Your task to perform on an android device: open chrome and create a bookmark for the current page Image 0: 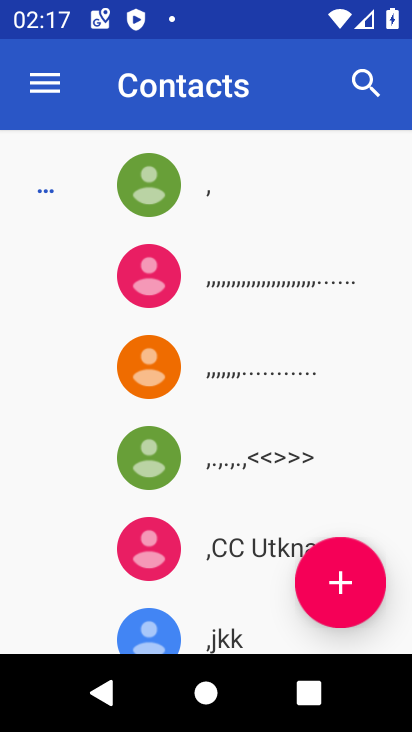
Step 0: press home button
Your task to perform on an android device: open chrome and create a bookmark for the current page Image 1: 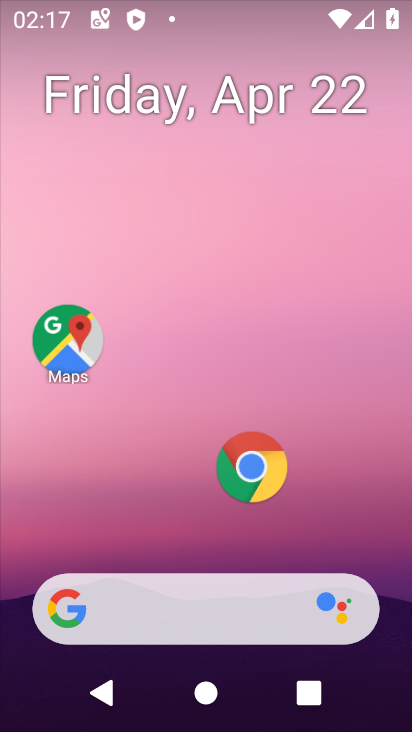
Step 1: drag from (162, 561) to (215, 46)
Your task to perform on an android device: open chrome and create a bookmark for the current page Image 2: 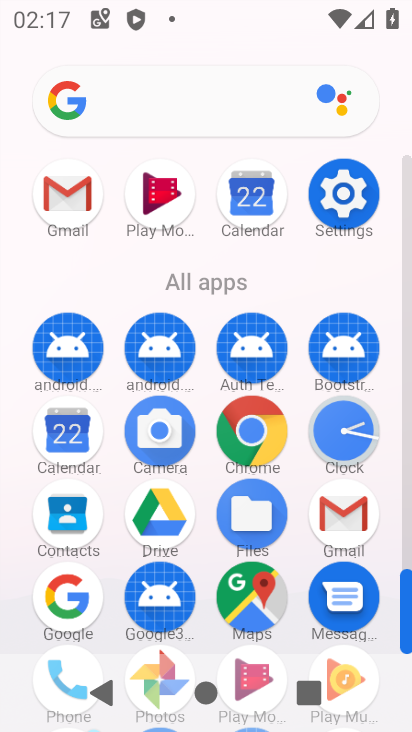
Step 2: click (252, 422)
Your task to perform on an android device: open chrome and create a bookmark for the current page Image 3: 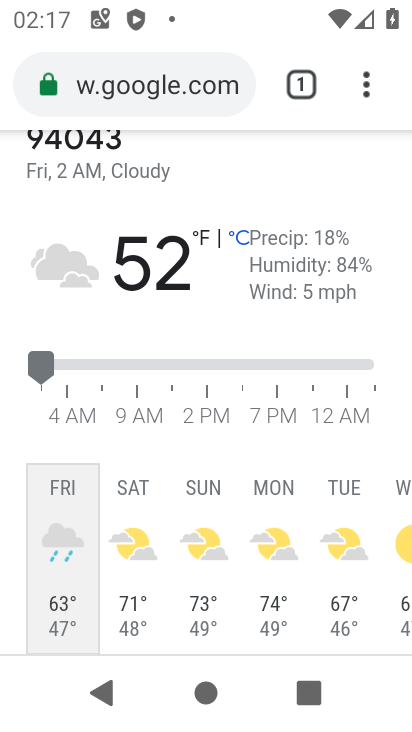
Step 3: click (360, 87)
Your task to perform on an android device: open chrome and create a bookmark for the current page Image 4: 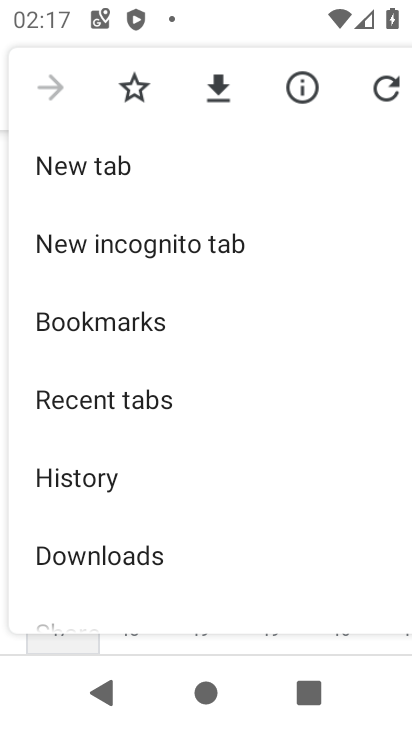
Step 4: click (127, 89)
Your task to perform on an android device: open chrome and create a bookmark for the current page Image 5: 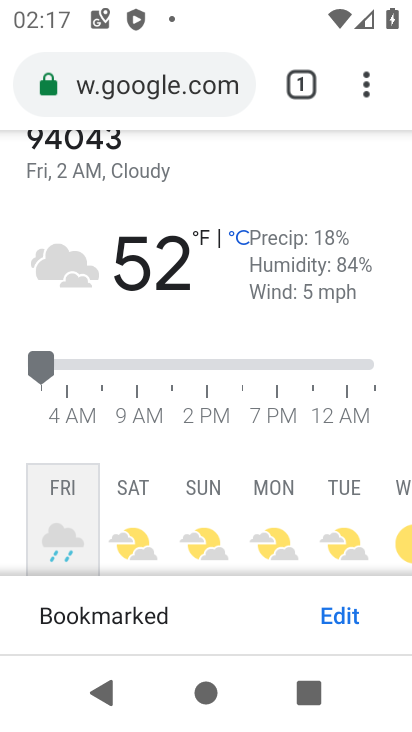
Step 5: task complete